Your task to perform on an android device: toggle show notifications on the lock screen Image 0: 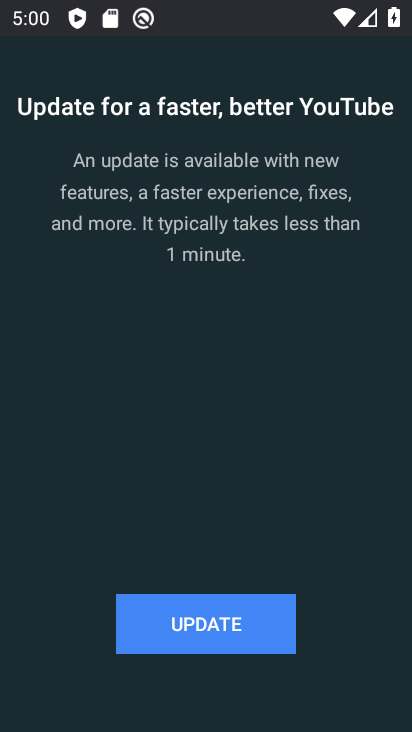
Step 0: press home button
Your task to perform on an android device: toggle show notifications on the lock screen Image 1: 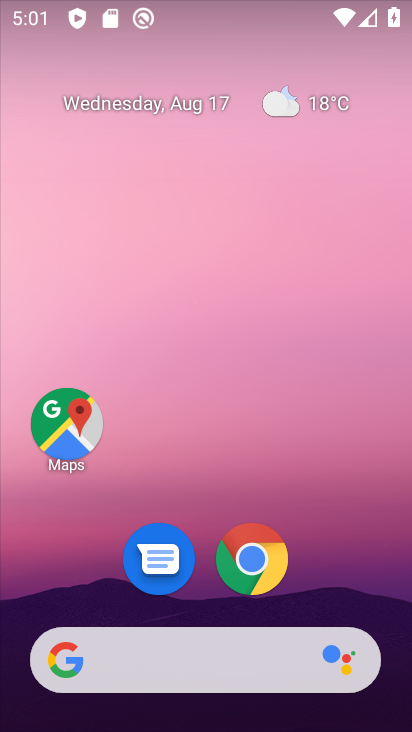
Step 1: drag from (204, 659) to (243, 282)
Your task to perform on an android device: toggle show notifications on the lock screen Image 2: 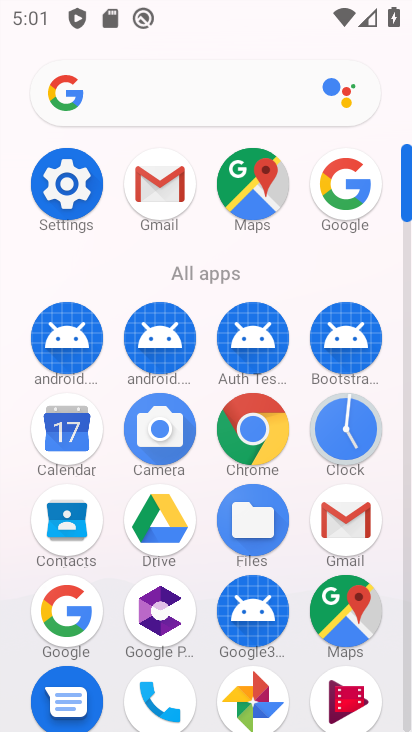
Step 2: click (66, 200)
Your task to perform on an android device: toggle show notifications on the lock screen Image 3: 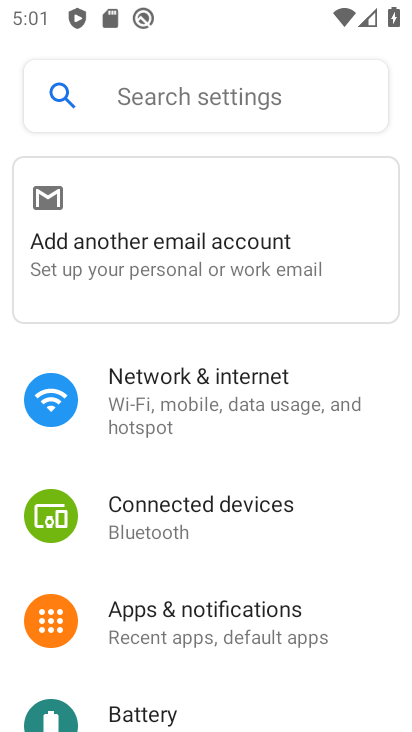
Step 3: click (210, 611)
Your task to perform on an android device: toggle show notifications on the lock screen Image 4: 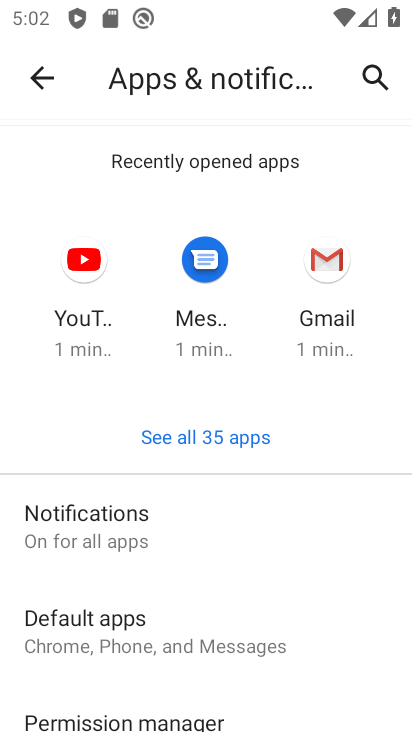
Step 4: click (60, 510)
Your task to perform on an android device: toggle show notifications on the lock screen Image 5: 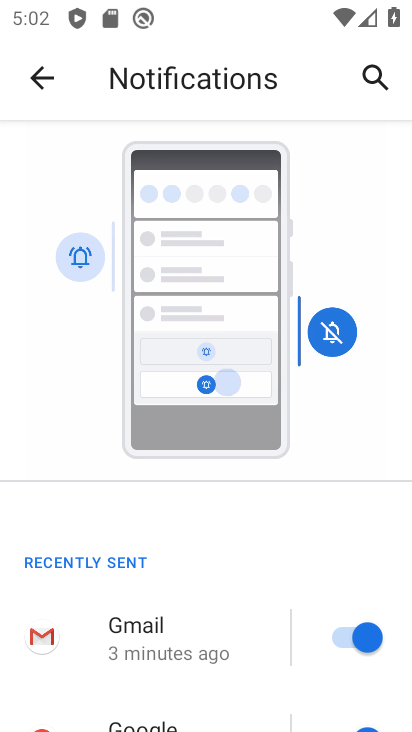
Step 5: drag from (170, 404) to (119, 216)
Your task to perform on an android device: toggle show notifications on the lock screen Image 6: 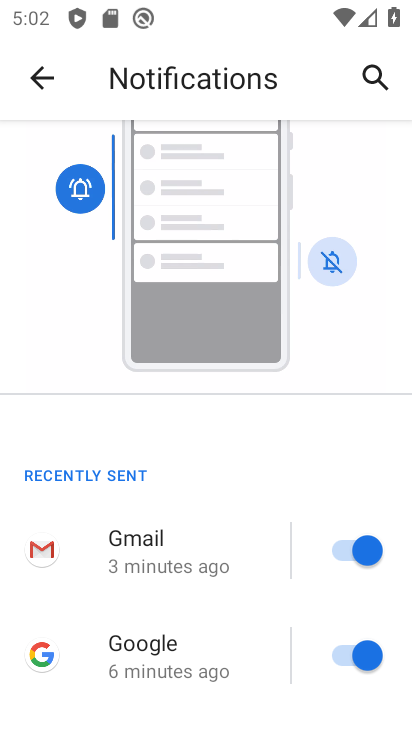
Step 6: drag from (224, 626) to (253, 41)
Your task to perform on an android device: toggle show notifications on the lock screen Image 7: 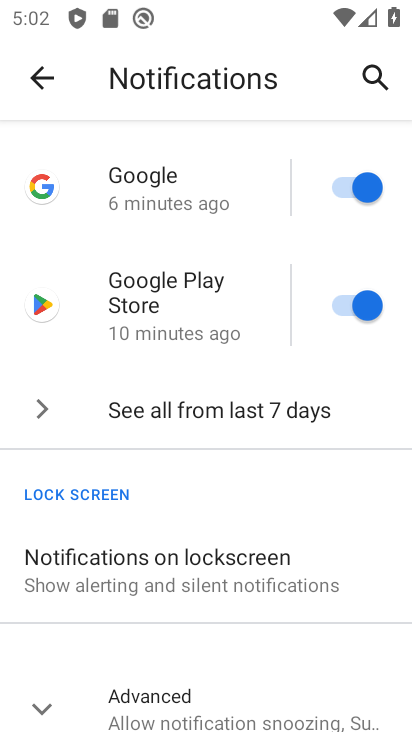
Step 7: click (113, 555)
Your task to perform on an android device: toggle show notifications on the lock screen Image 8: 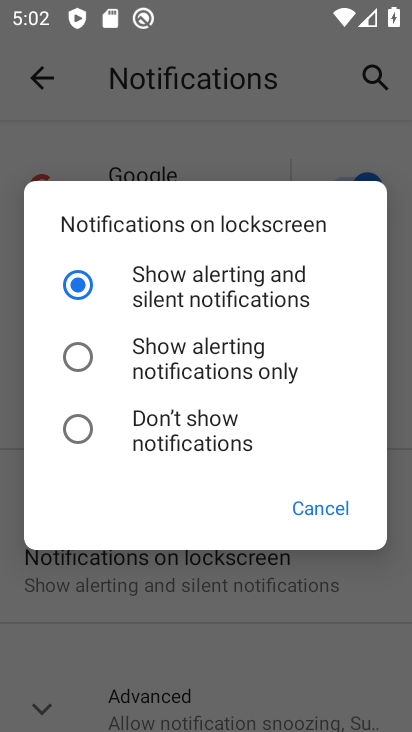
Step 8: click (188, 296)
Your task to perform on an android device: toggle show notifications on the lock screen Image 9: 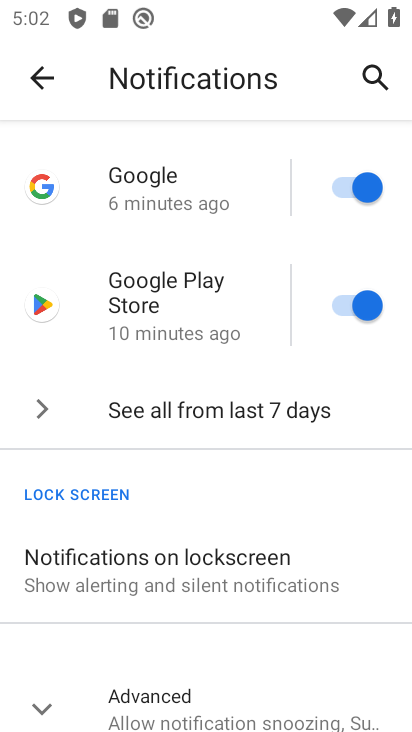
Step 9: task complete